Your task to perform on an android device: What's the weather going to be this weekend? Image 0: 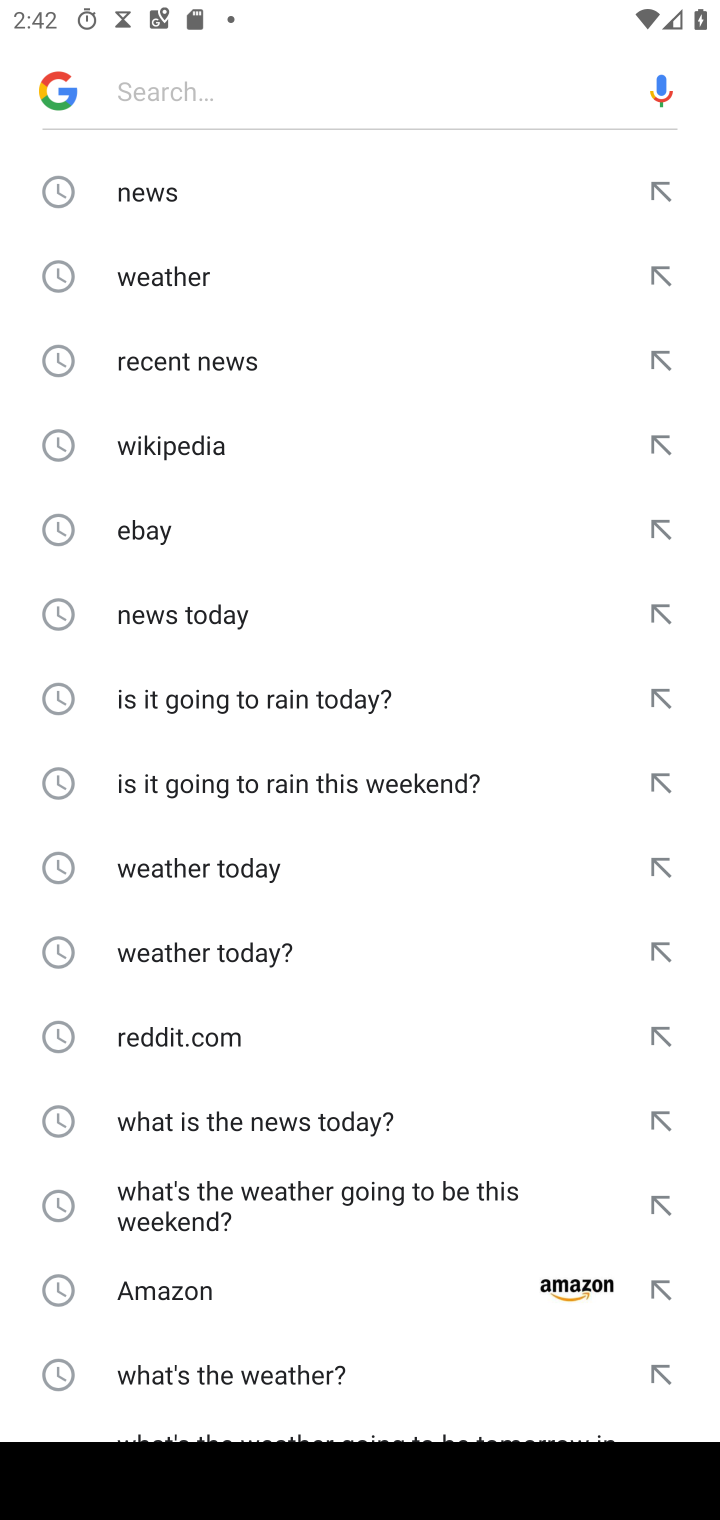
Step 0: press home button
Your task to perform on an android device: What's the weather going to be this weekend? Image 1: 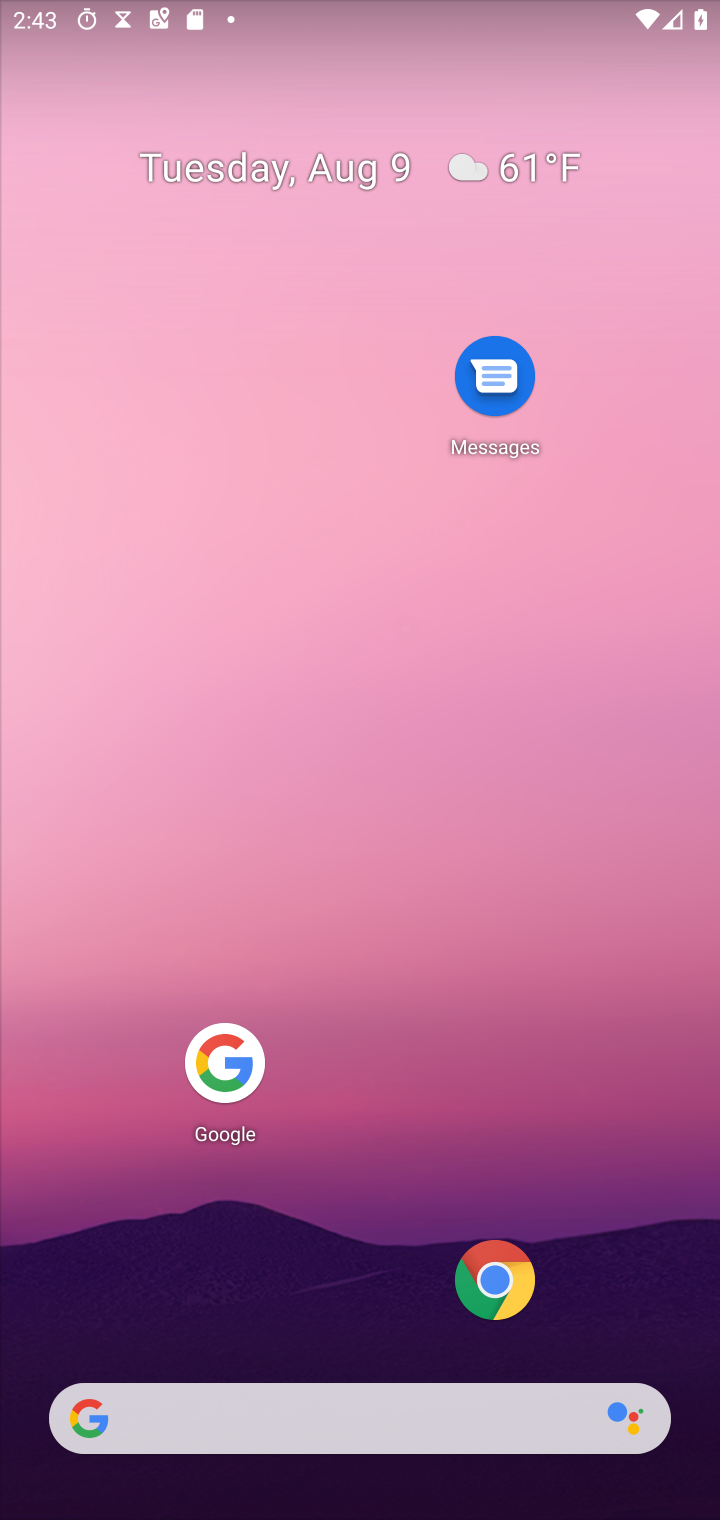
Step 1: click (230, 1404)
Your task to perform on an android device: What's the weather going to be this weekend? Image 2: 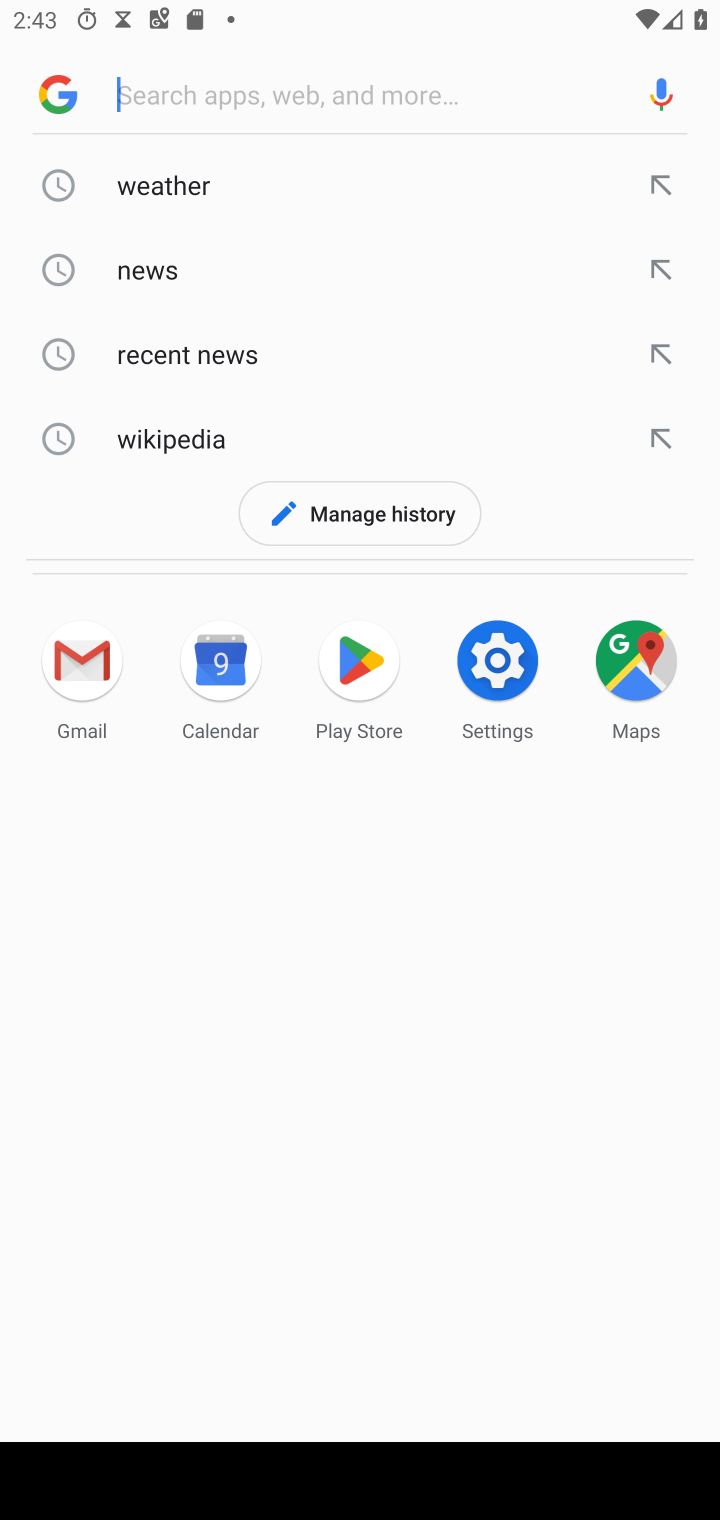
Step 2: click (154, 190)
Your task to perform on an android device: What's the weather going to be this weekend? Image 3: 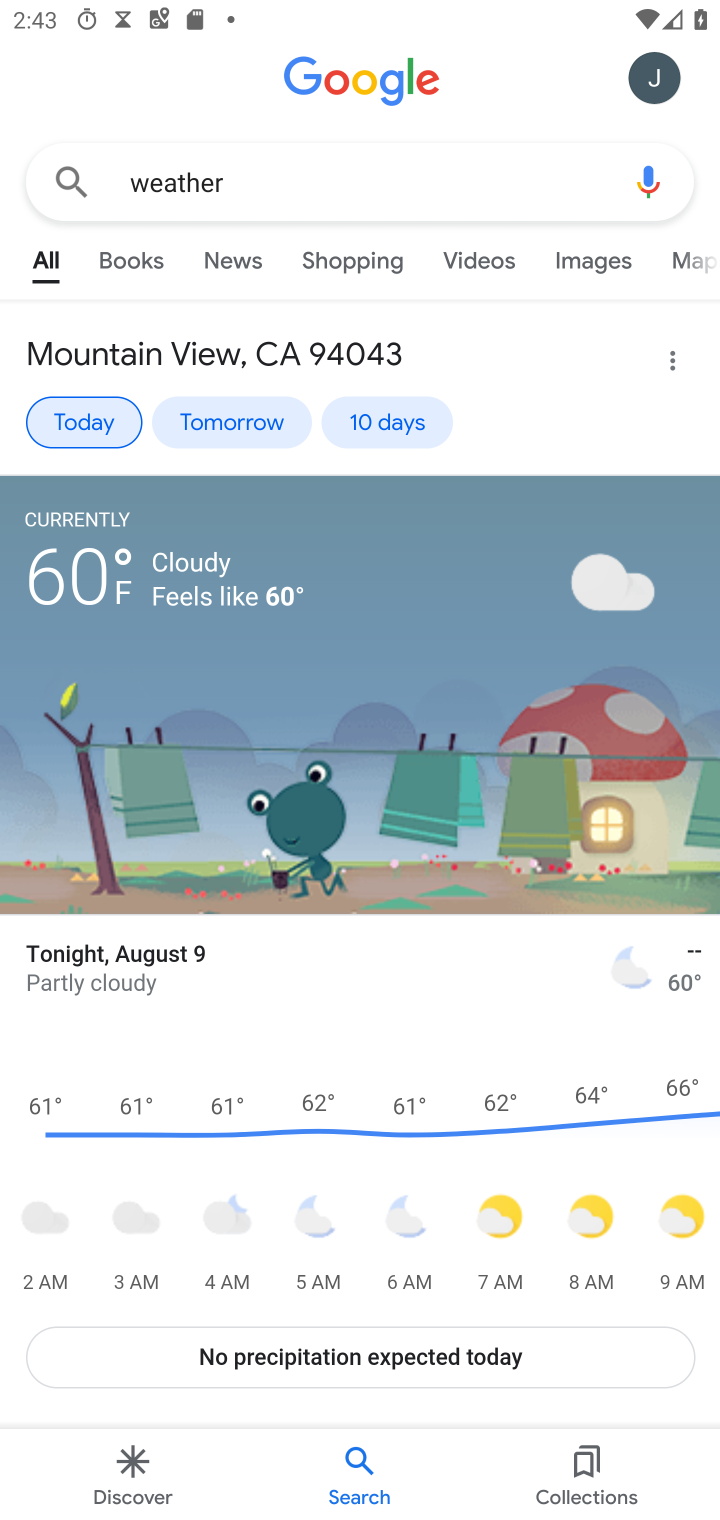
Step 3: click (386, 419)
Your task to perform on an android device: What's the weather going to be this weekend? Image 4: 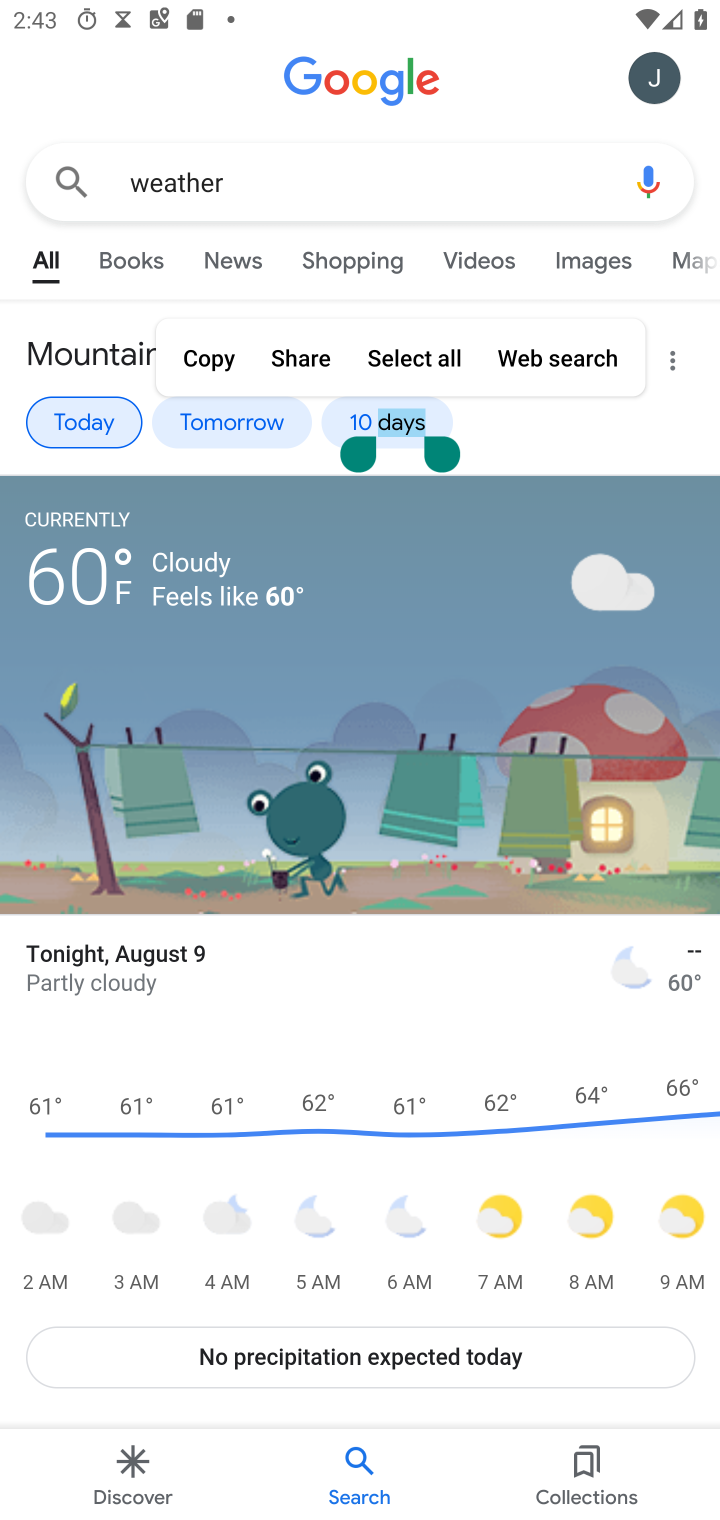
Step 4: click (386, 419)
Your task to perform on an android device: What's the weather going to be this weekend? Image 5: 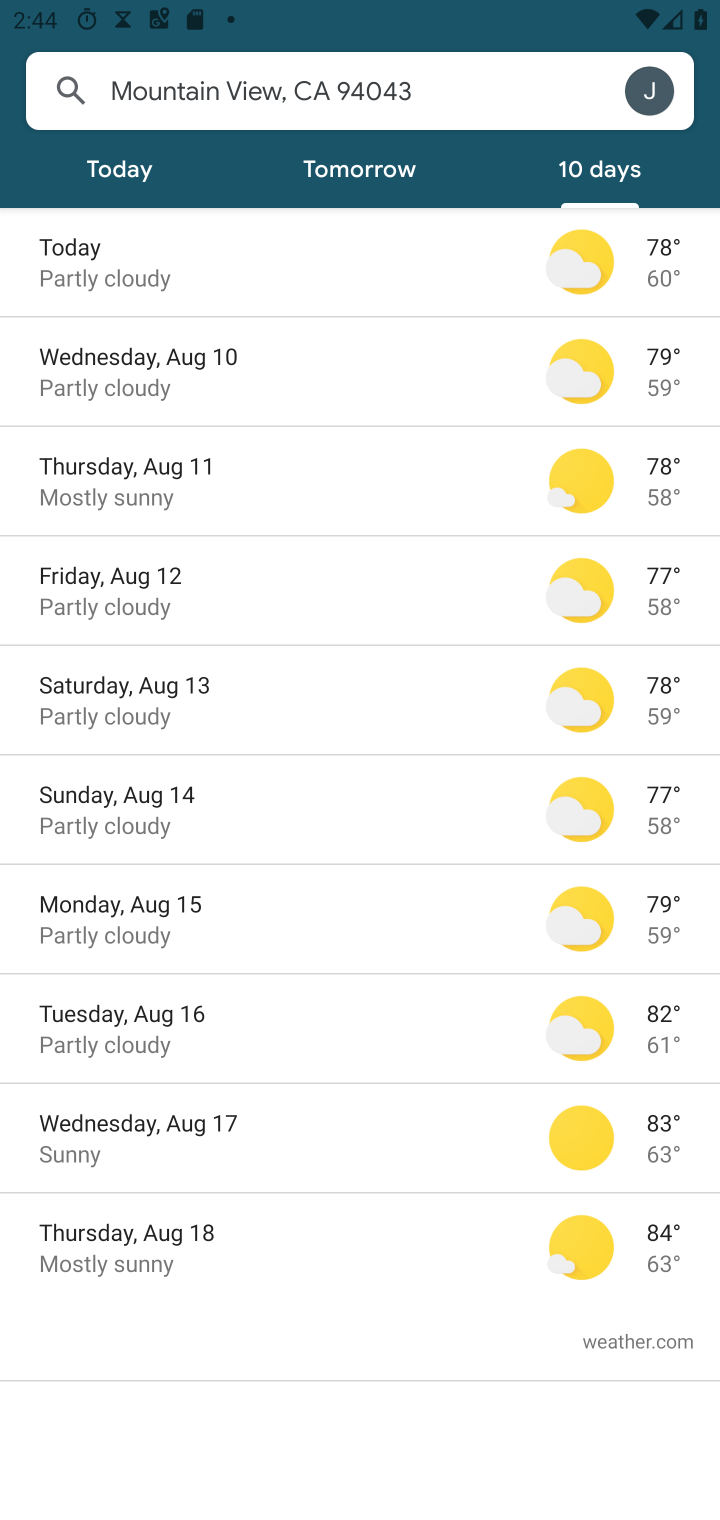
Step 5: click (138, 711)
Your task to perform on an android device: What's the weather going to be this weekend? Image 6: 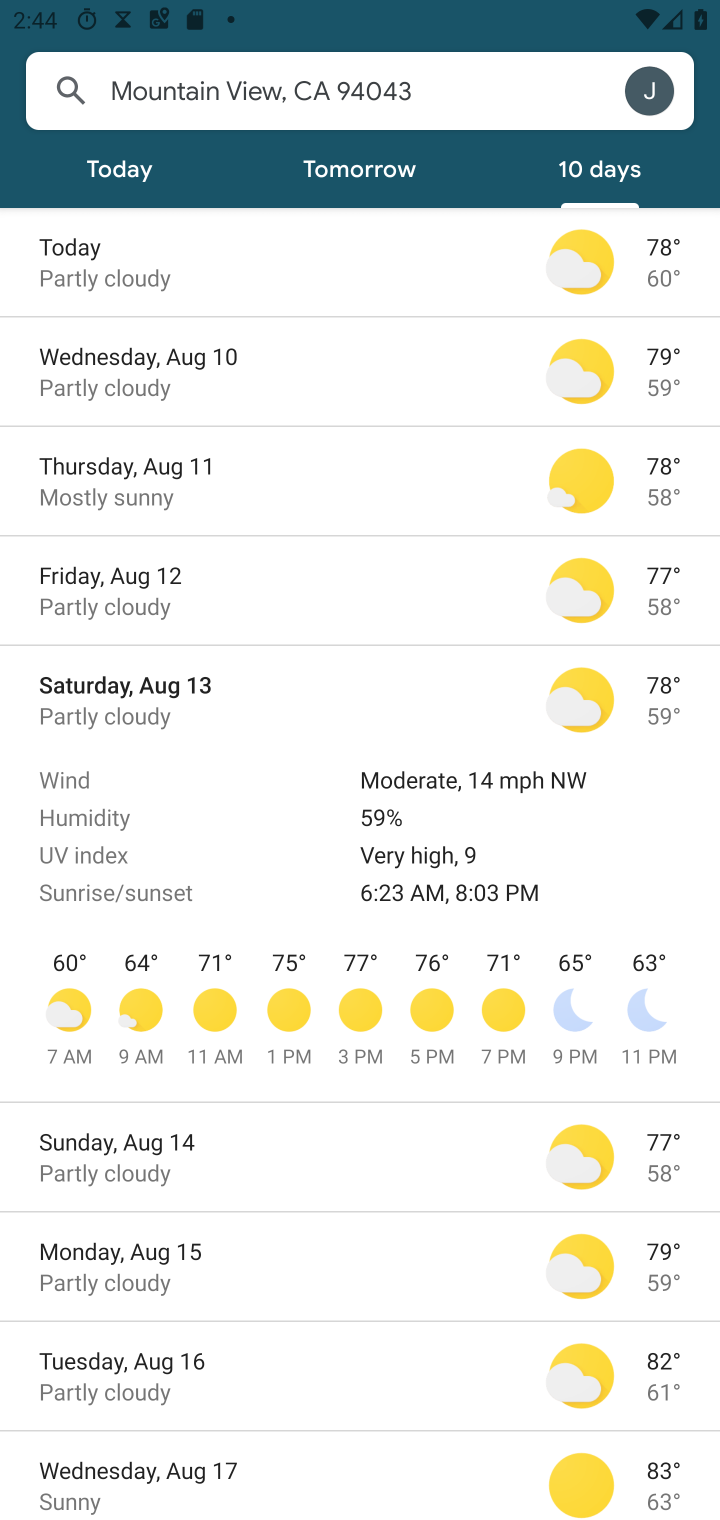
Step 6: task complete